Your task to perform on an android device: Open Maps and search for coffee Image 0: 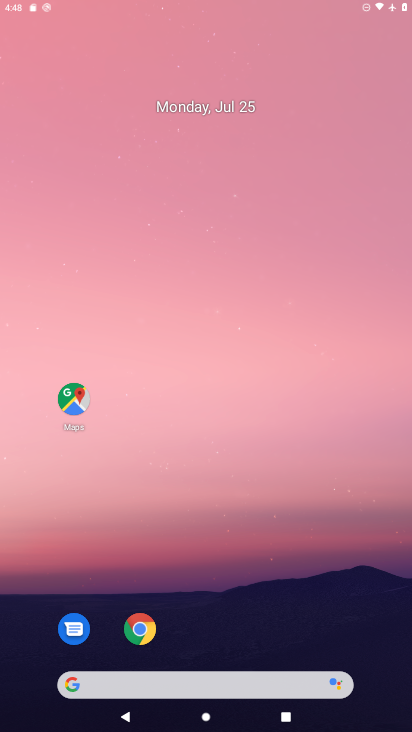
Step 0: drag from (244, 642) to (239, 0)
Your task to perform on an android device: Open Maps and search for coffee Image 1: 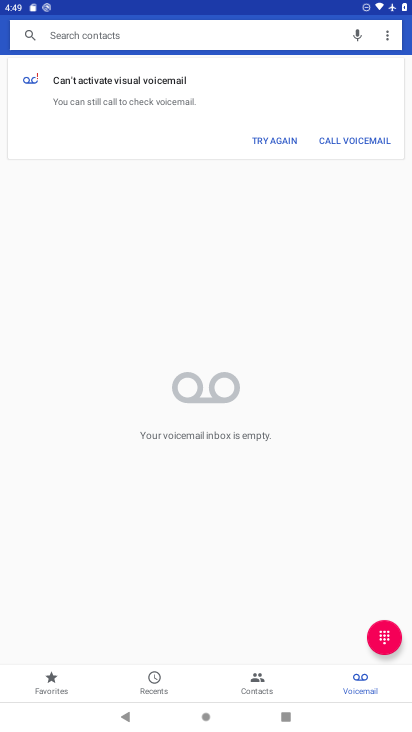
Step 1: press home button
Your task to perform on an android device: Open Maps and search for coffee Image 2: 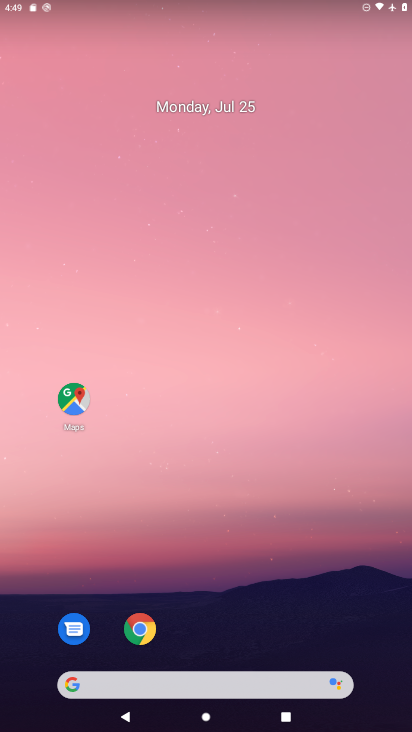
Step 2: drag from (169, 684) to (270, 8)
Your task to perform on an android device: Open Maps and search for coffee Image 3: 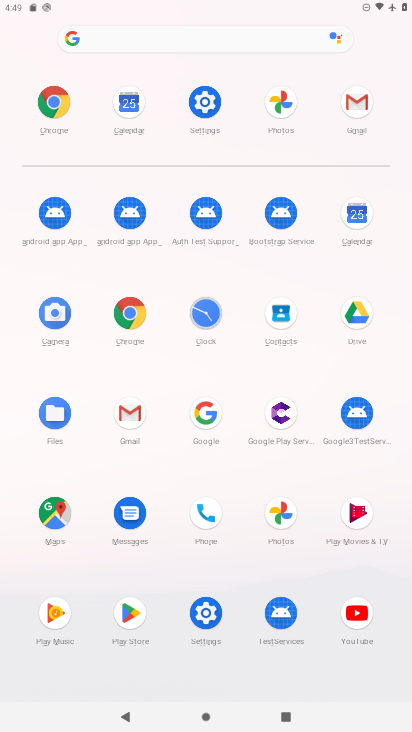
Step 3: click (126, 323)
Your task to perform on an android device: Open Maps and search for coffee Image 4: 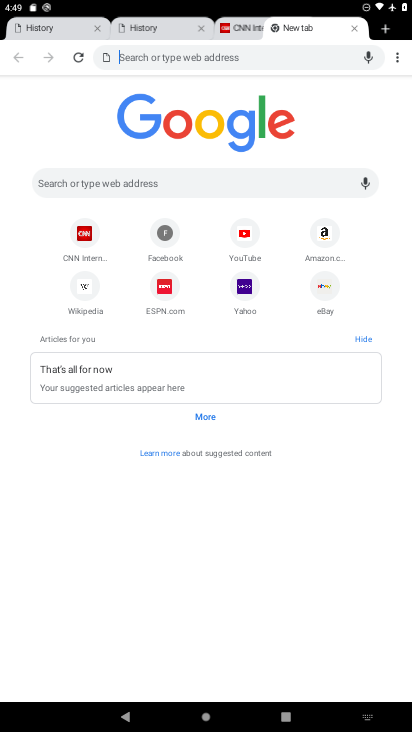
Step 4: press home button
Your task to perform on an android device: Open Maps and search for coffee Image 5: 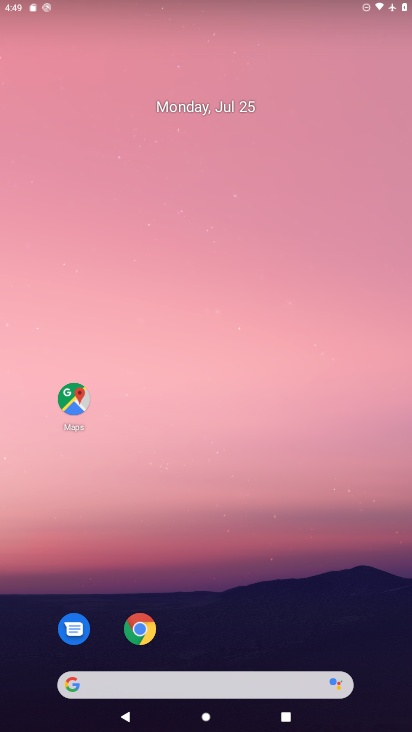
Step 5: drag from (264, 677) to (342, 45)
Your task to perform on an android device: Open Maps and search for coffee Image 6: 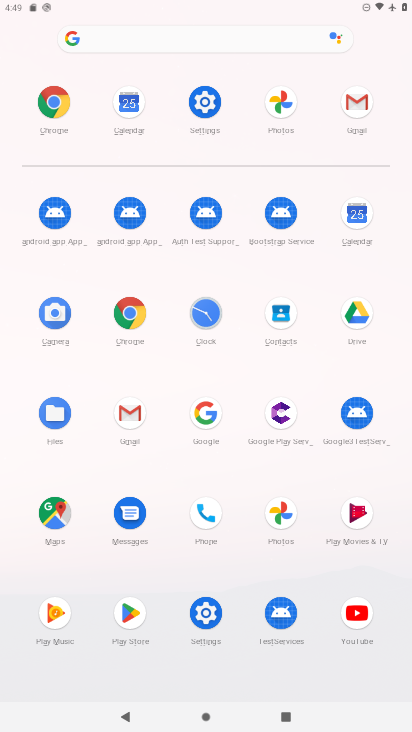
Step 6: click (44, 517)
Your task to perform on an android device: Open Maps and search for coffee Image 7: 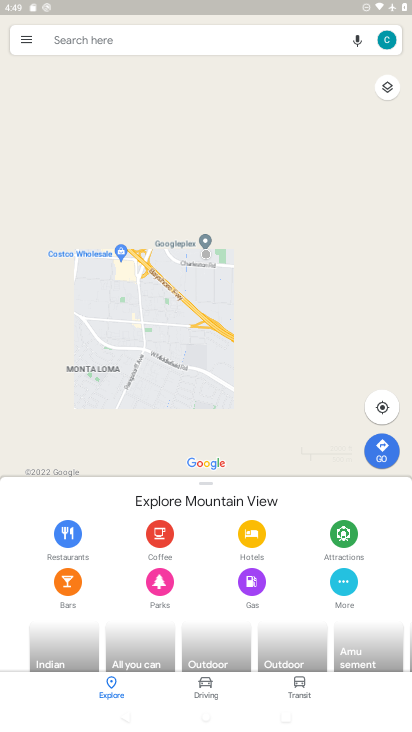
Step 7: click (142, 48)
Your task to perform on an android device: Open Maps and search for coffee Image 8: 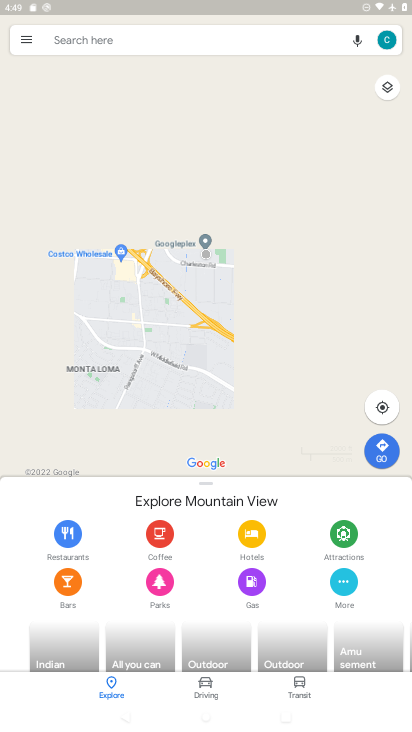
Step 8: click (142, 48)
Your task to perform on an android device: Open Maps and search for coffee Image 9: 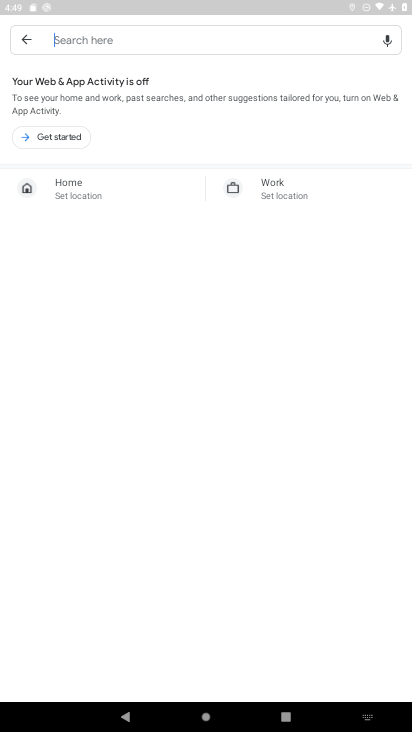
Step 9: type "coffee"
Your task to perform on an android device: Open Maps and search for coffee Image 10: 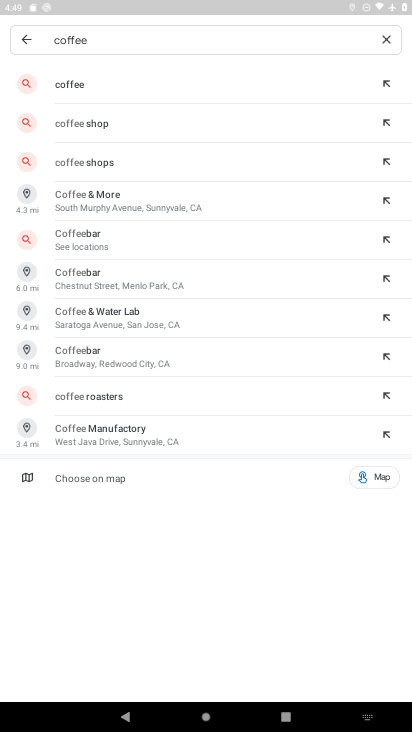
Step 10: click (66, 89)
Your task to perform on an android device: Open Maps and search for coffee Image 11: 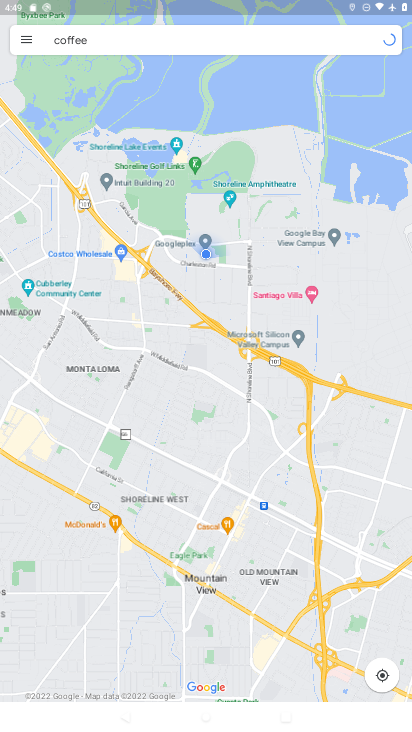
Step 11: task complete